Your task to perform on an android device: turn on sleep mode Image 0: 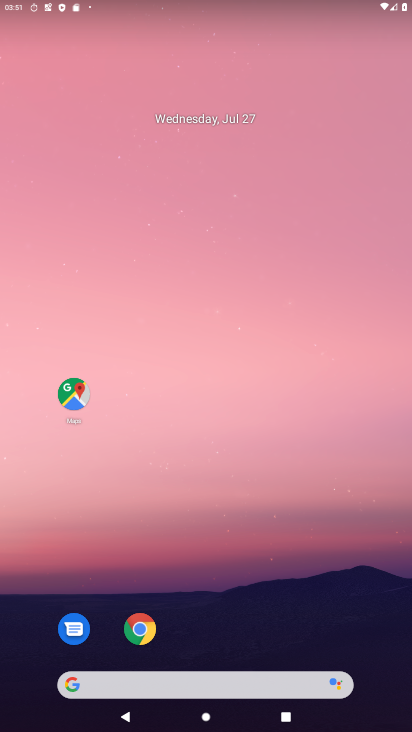
Step 0: drag from (293, 610) to (264, 93)
Your task to perform on an android device: turn on sleep mode Image 1: 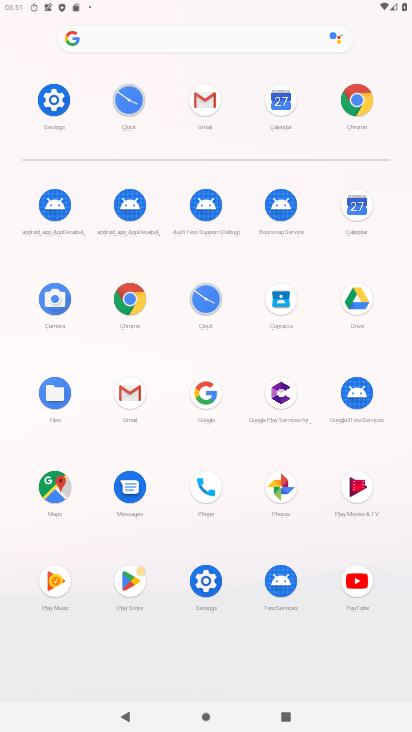
Step 1: click (66, 98)
Your task to perform on an android device: turn on sleep mode Image 2: 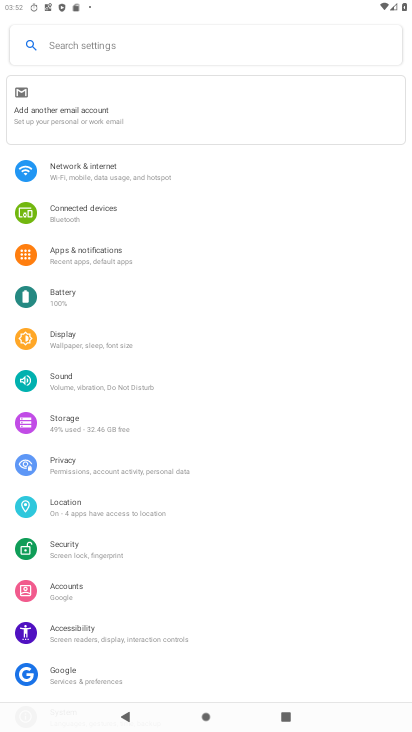
Step 2: click (95, 345)
Your task to perform on an android device: turn on sleep mode Image 3: 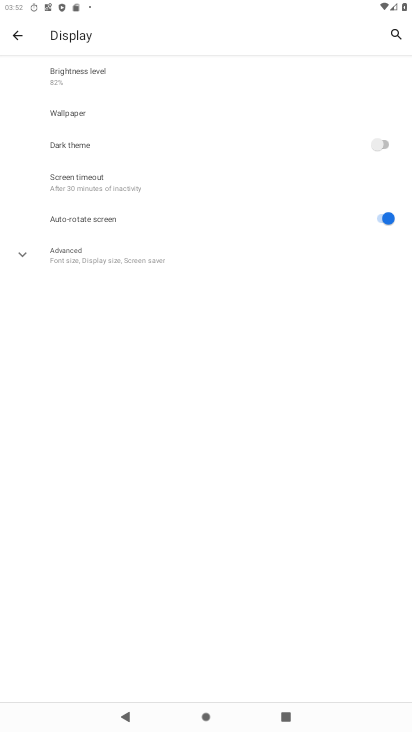
Step 3: click (97, 175)
Your task to perform on an android device: turn on sleep mode Image 4: 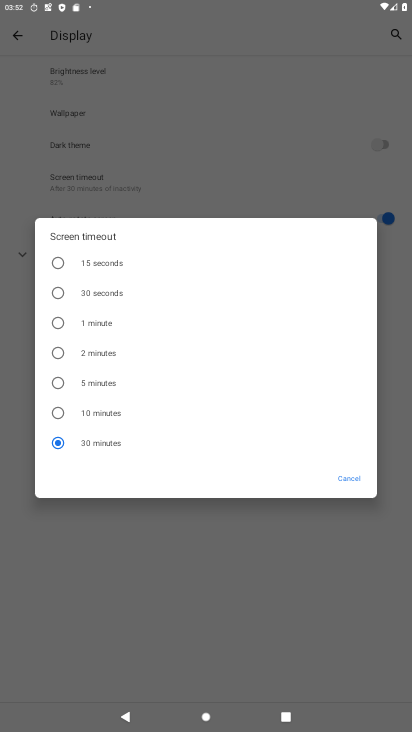
Step 4: task complete